Your task to perform on an android device: turn off location Image 0: 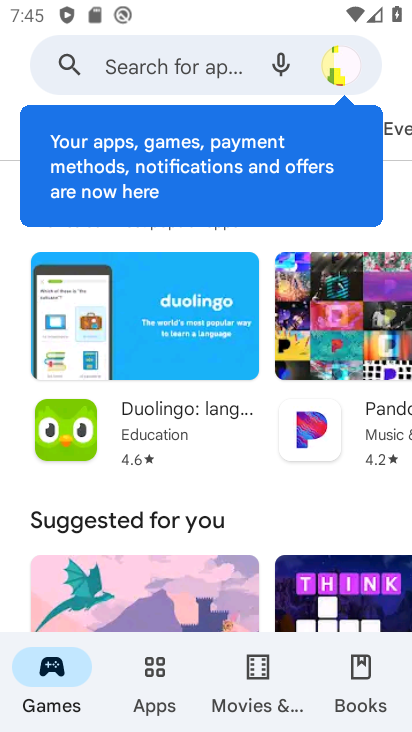
Step 0: press home button
Your task to perform on an android device: turn off location Image 1: 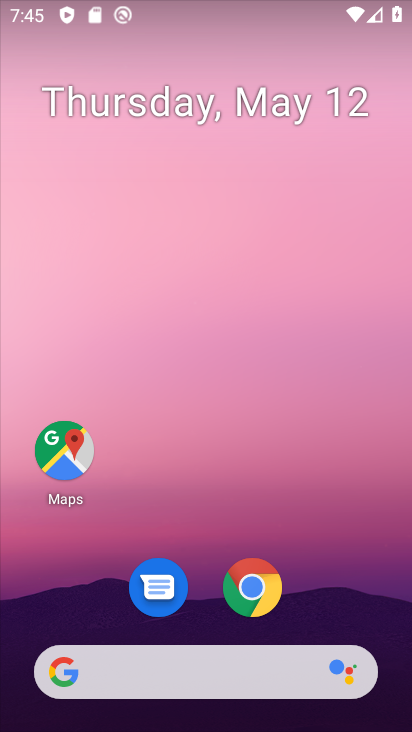
Step 1: drag from (315, 605) to (293, 192)
Your task to perform on an android device: turn off location Image 2: 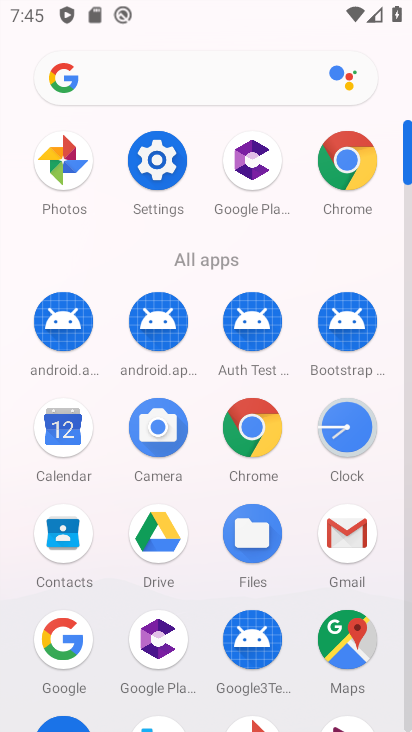
Step 2: click (158, 156)
Your task to perform on an android device: turn off location Image 3: 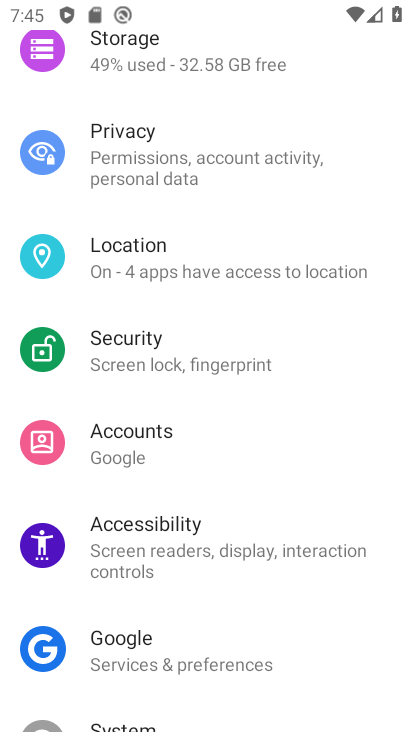
Step 3: click (185, 260)
Your task to perform on an android device: turn off location Image 4: 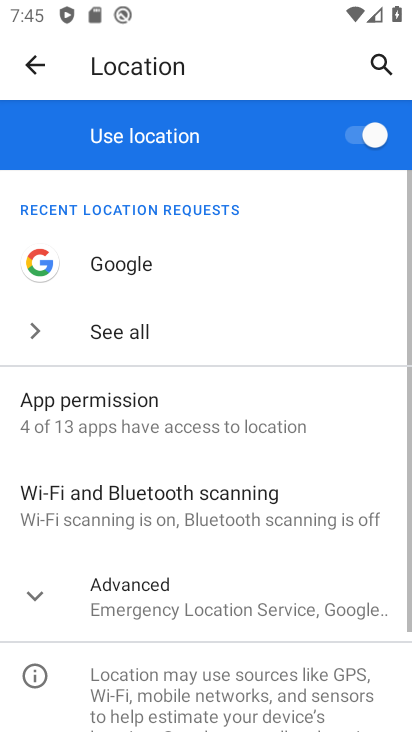
Step 4: click (362, 125)
Your task to perform on an android device: turn off location Image 5: 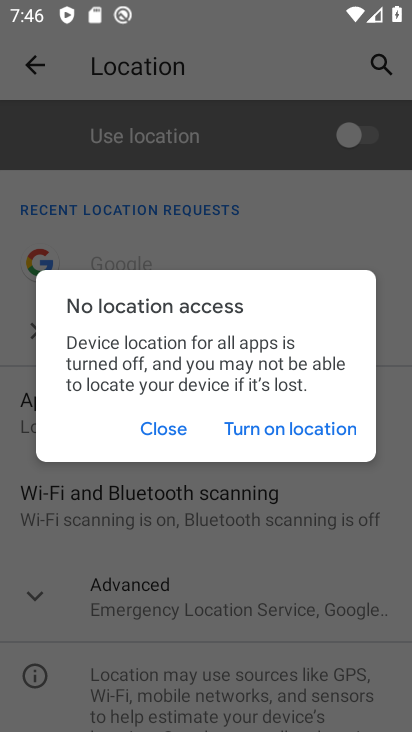
Step 5: click (148, 430)
Your task to perform on an android device: turn off location Image 6: 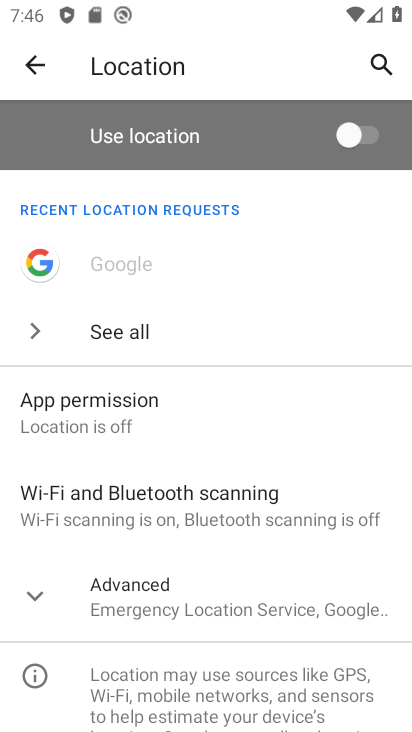
Step 6: task complete